Your task to perform on an android device: change the clock style Image 0: 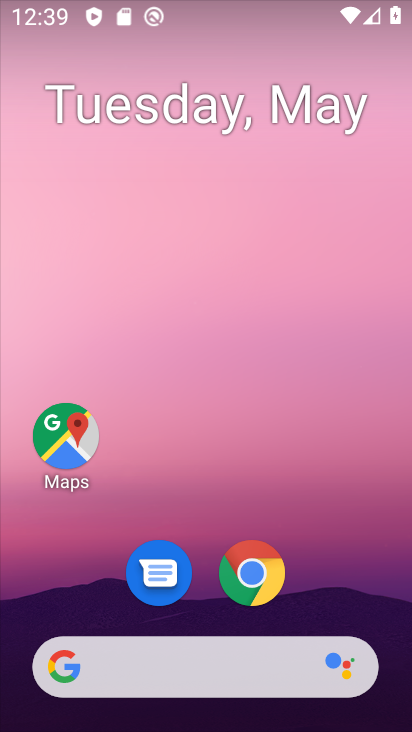
Step 0: drag from (355, 533) to (272, 3)
Your task to perform on an android device: change the clock style Image 1: 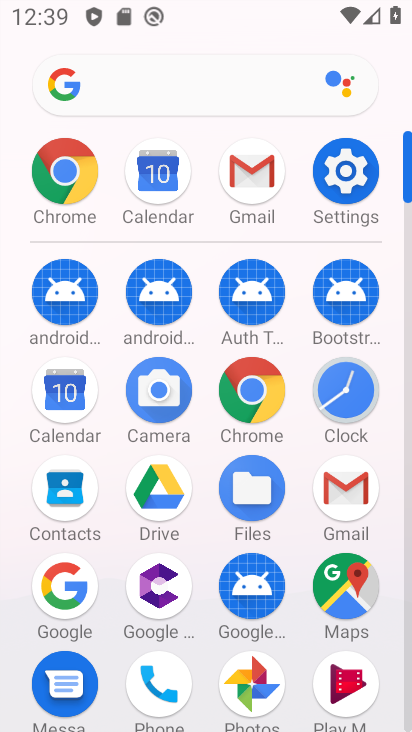
Step 1: click (381, 426)
Your task to perform on an android device: change the clock style Image 2: 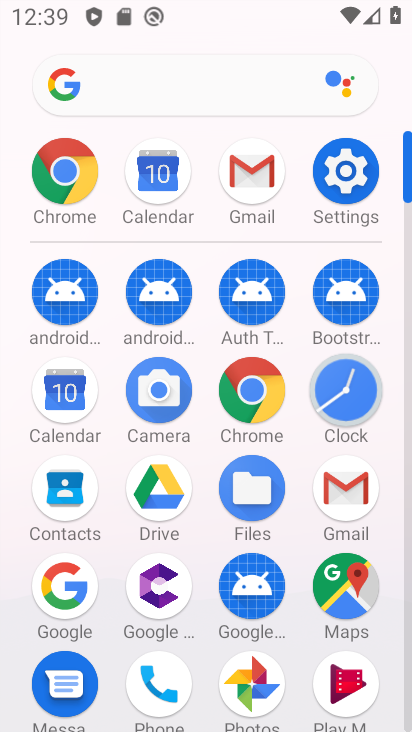
Step 2: click (349, 391)
Your task to perform on an android device: change the clock style Image 3: 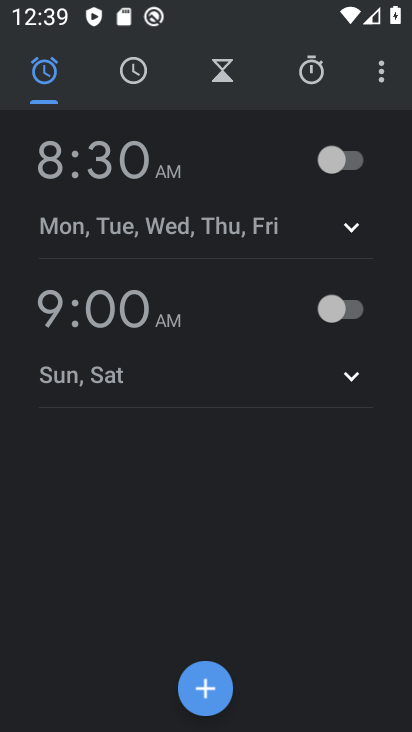
Step 3: click (386, 74)
Your task to perform on an android device: change the clock style Image 4: 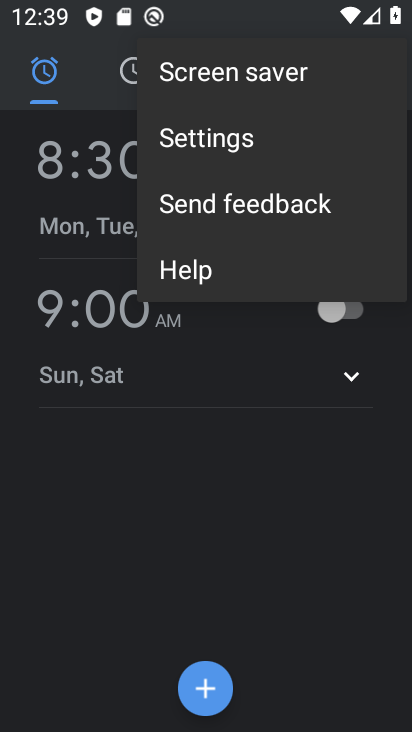
Step 4: click (246, 139)
Your task to perform on an android device: change the clock style Image 5: 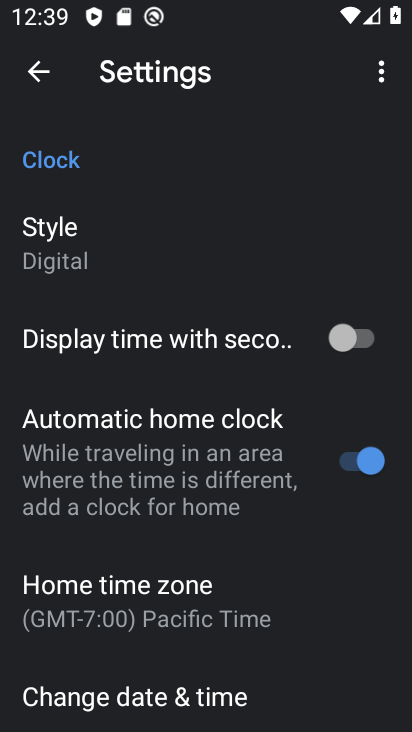
Step 5: click (98, 249)
Your task to perform on an android device: change the clock style Image 6: 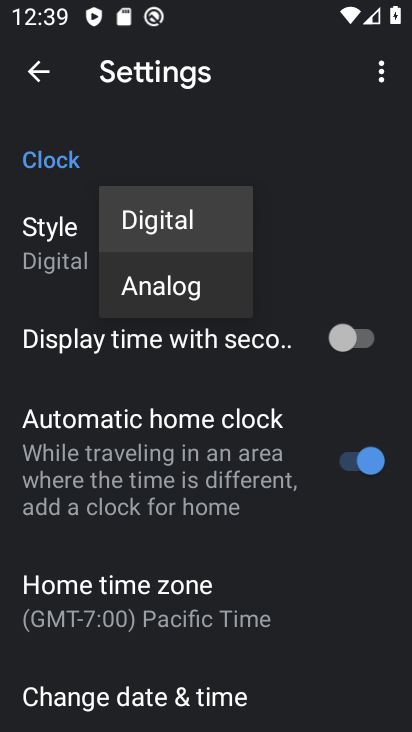
Step 6: click (146, 297)
Your task to perform on an android device: change the clock style Image 7: 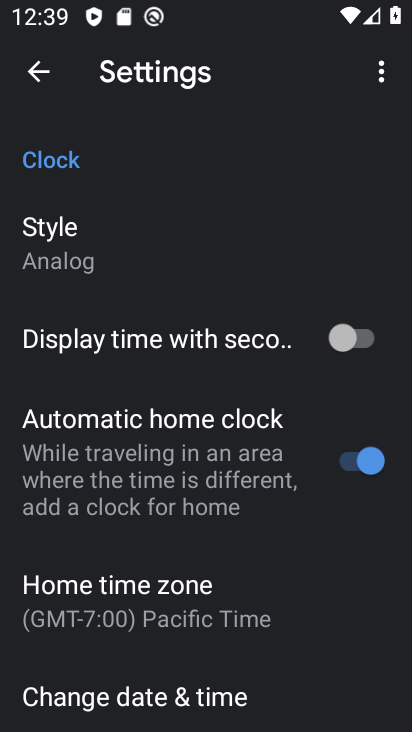
Step 7: task complete